Your task to perform on an android device: toggle wifi Image 0: 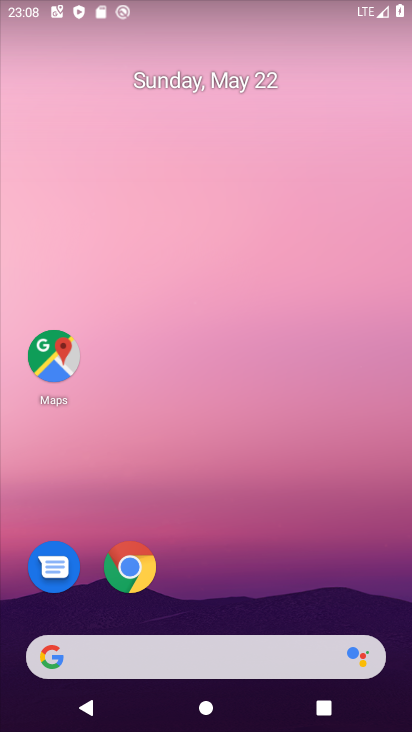
Step 0: drag from (242, 552) to (244, 4)
Your task to perform on an android device: toggle wifi Image 1: 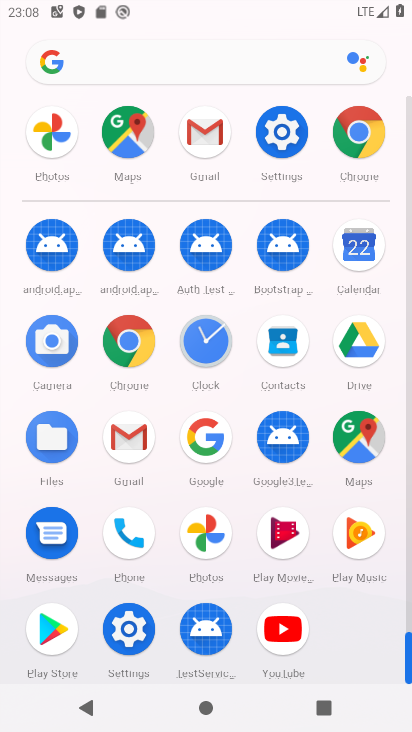
Step 1: click (281, 125)
Your task to perform on an android device: toggle wifi Image 2: 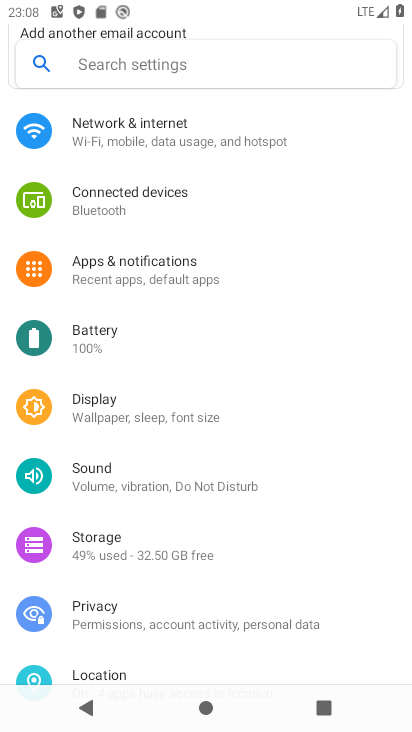
Step 2: drag from (225, 179) to (164, 501)
Your task to perform on an android device: toggle wifi Image 3: 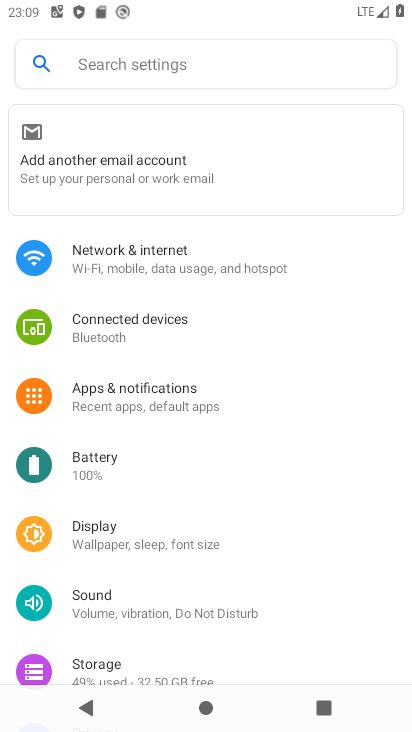
Step 3: click (165, 259)
Your task to perform on an android device: toggle wifi Image 4: 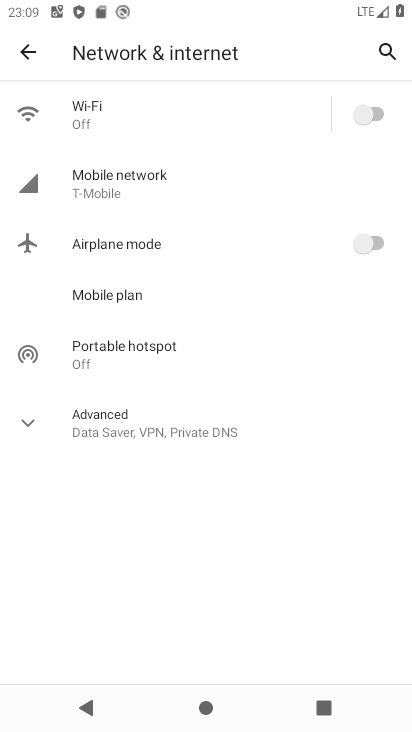
Step 4: click (363, 109)
Your task to perform on an android device: toggle wifi Image 5: 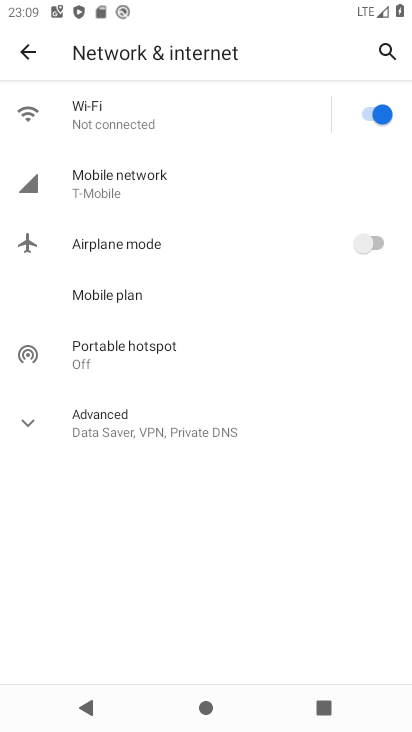
Step 5: task complete